Your task to perform on an android device: turn off smart reply in the gmail app Image 0: 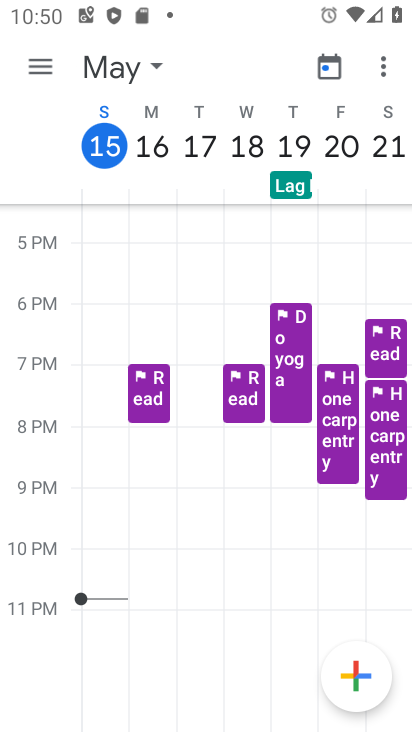
Step 0: press home button
Your task to perform on an android device: turn off smart reply in the gmail app Image 1: 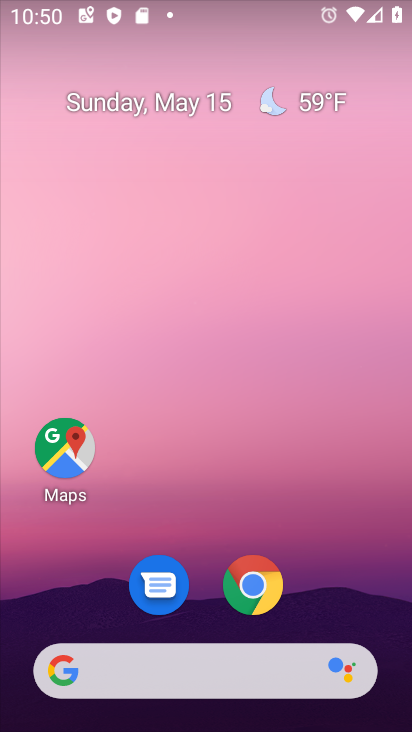
Step 1: drag from (281, 430) to (323, 56)
Your task to perform on an android device: turn off smart reply in the gmail app Image 2: 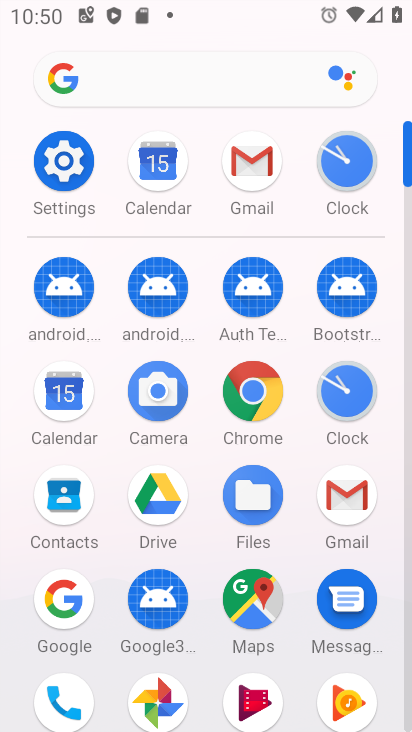
Step 2: click (253, 163)
Your task to perform on an android device: turn off smart reply in the gmail app Image 3: 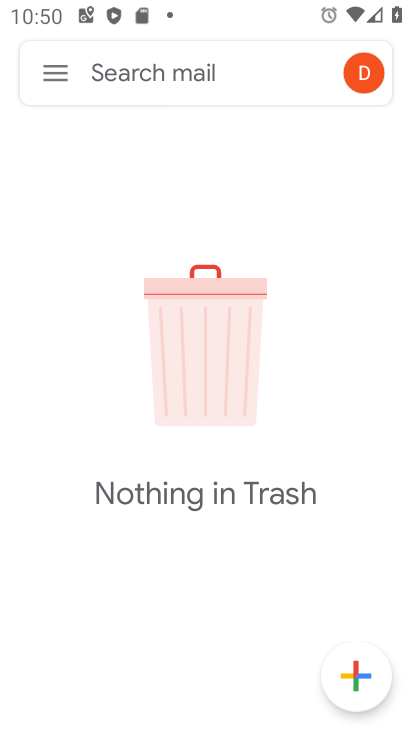
Step 3: click (59, 69)
Your task to perform on an android device: turn off smart reply in the gmail app Image 4: 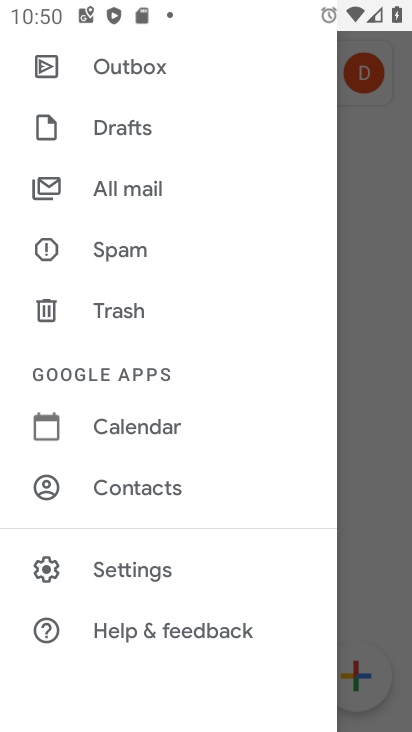
Step 4: click (131, 573)
Your task to perform on an android device: turn off smart reply in the gmail app Image 5: 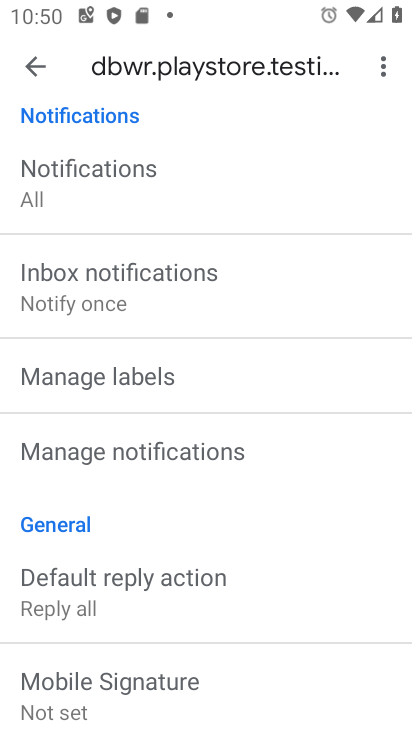
Step 5: drag from (280, 568) to (264, 12)
Your task to perform on an android device: turn off smart reply in the gmail app Image 6: 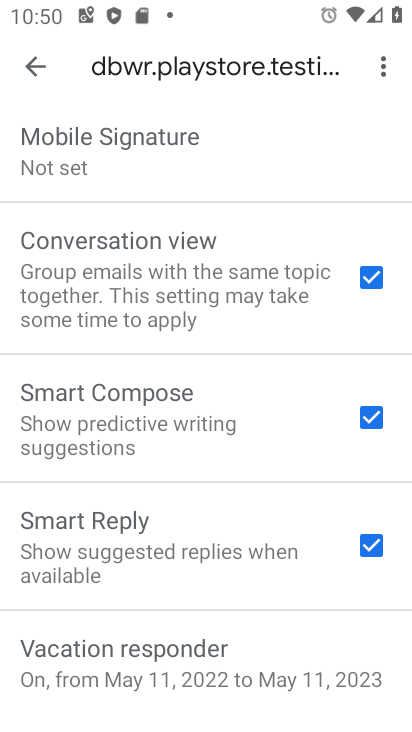
Step 6: click (373, 549)
Your task to perform on an android device: turn off smart reply in the gmail app Image 7: 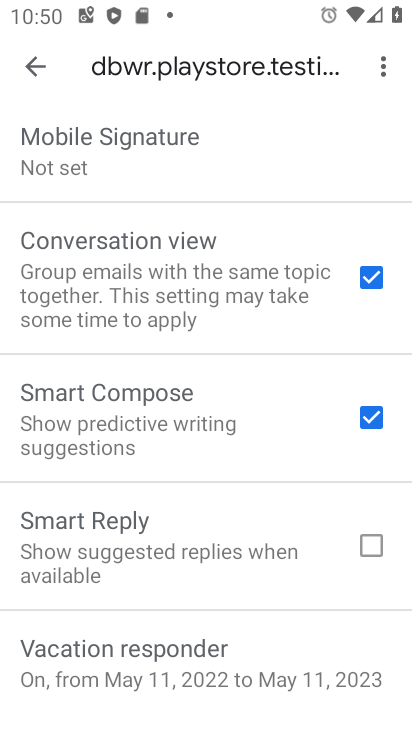
Step 7: task complete